Your task to perform on an android device: Add "logitech g903" to the cart on costco Image 0: 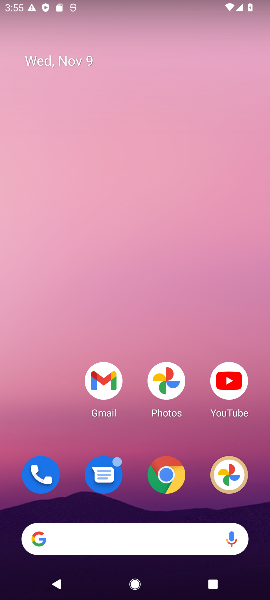
Step 0: drag from (159, 522) to (205, 97)
Your task to perform on an android device: Add "logitech g903" to the cart on costco Image 1: 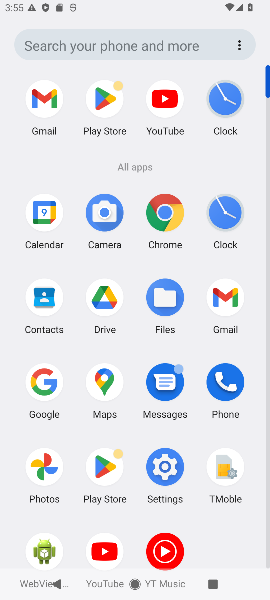
Step 1: click (171, 206)
Your task to perform on an android device: Add "logitech g903" to the cart on costco Image 2: 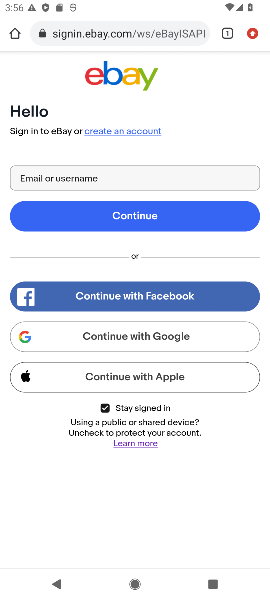
Step 2: click (99, 32)
Your task to perform on an android device: Add "logitech g903" to the cart on costco Image 3: 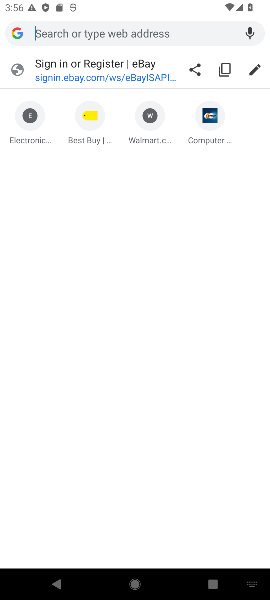
Step 3: type "costco"
Your task to perform on an android device: Add "logitech g903" to the cart on costco Image 4: 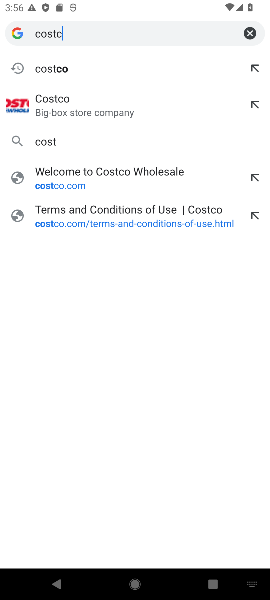
Step 4: press enter
Your task to perform on an android device: Add "logitech g903" to the cart on costco Image 5: 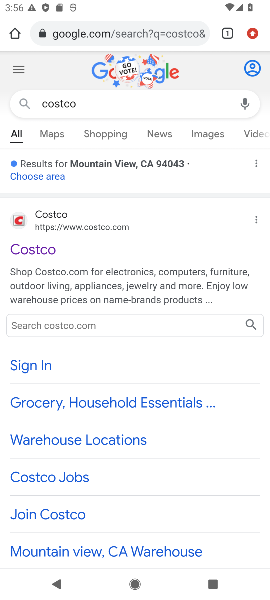
Step 5: click (32, 221)
Your task to perform on an android device: Add "logitech g903" to the cart on costco Image 6: 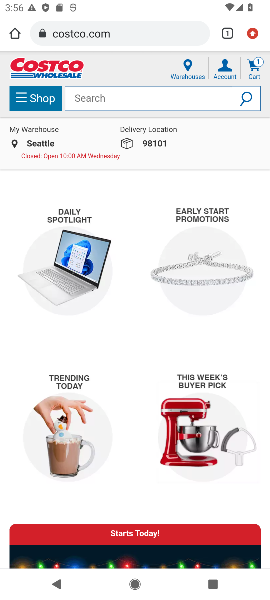
Step 6: click (110, 105)
Your task to perform on an android device: Add "logitech g903" to the cart on costco Image 7: 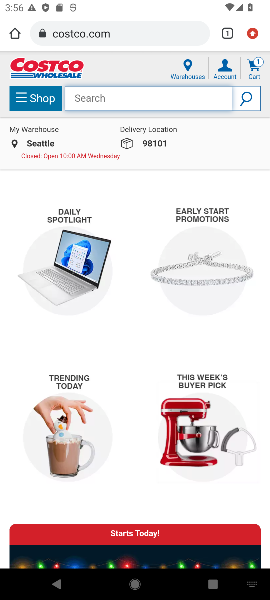
Step 7: click (97, 102)
Your task to perform on an android device: Add "logitech g903" to the cart on costco Image 8: 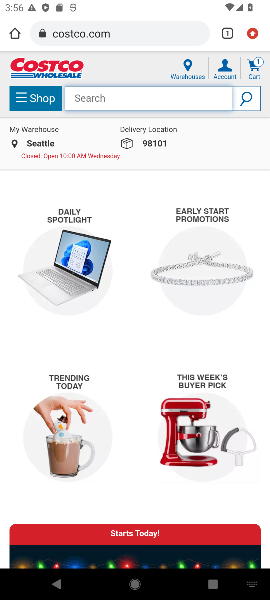
Step 8: click (116, 95)
Your task to perform on an android device: Add "logitech g903" to the cart on costco Image 9: 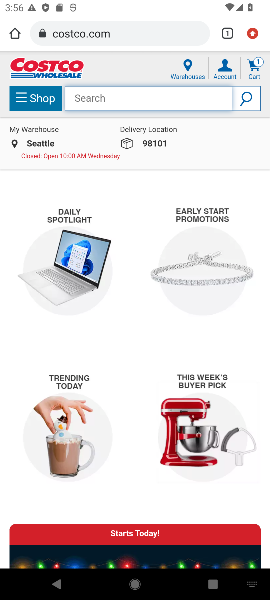
Step 9: click (104, 98)
Your task to perform on an android device: Add "logitech g903" to the cart on costco Image 10: 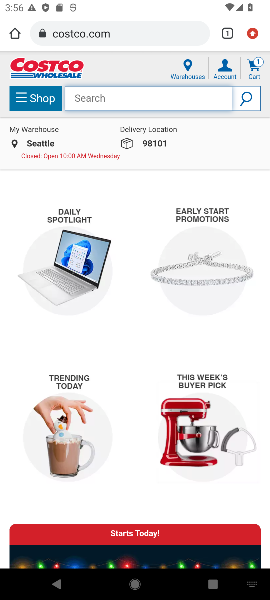
Step 10: click (137, 101)
Your task to perform on an android device: Add "logitech g903" to the cart on costco Image 11: 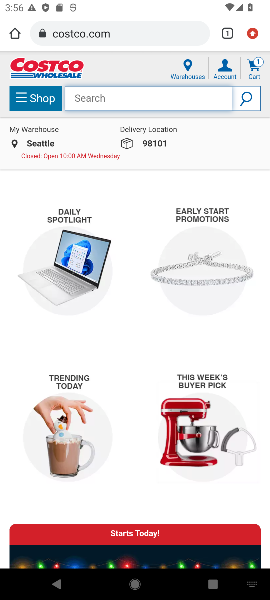
Step 11: click (92, 95)
Your task to perform on an android device: Add "logitech g903" to the cart on costco Image 12: 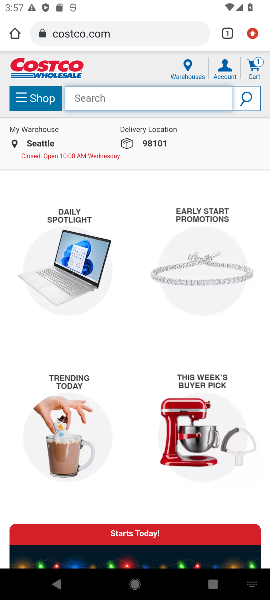
Step 12: click (169, 97)
Your task to perform on an android device: Add "logitech g903" to the cart on costco Image 13: 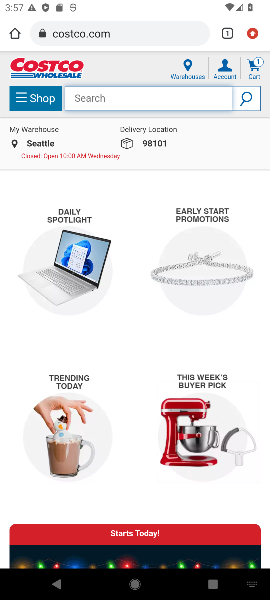
Step 13: click (82, 91)
Your task to perform on an android device: Add "logitech g903" to the cart on costco Image 14: 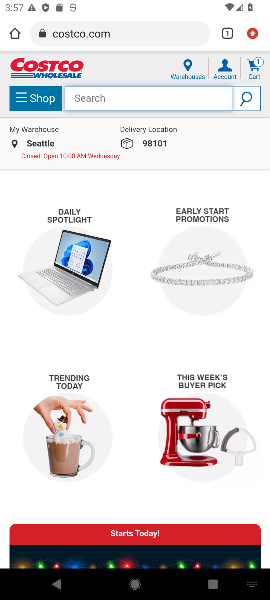
Step 14: click (81, 101)
Your task to perform on an android device: Add "logitech g903" to the cart on costco Image 15: 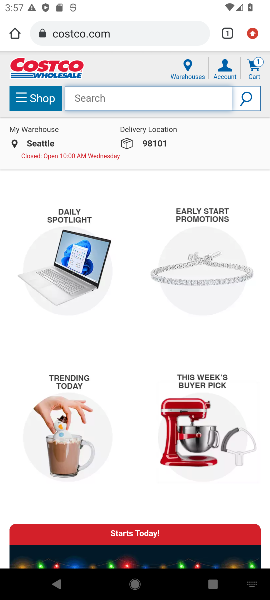
Step 15: click (81, 100)
Your task to perform on an android device: Add "logitech g903" to the cart on costco Image 16: 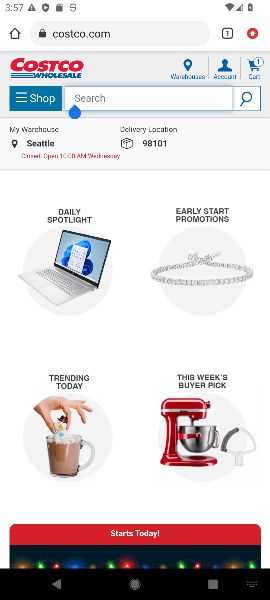
Step 16: click (82, 101)
Your task to perform on an android device: Add "logitech g903" to the cart on costco Image 17: 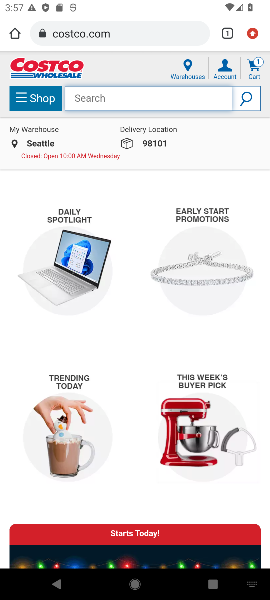
Step 17: click (82, 102)
Your task to perform on an android device: Add "logitech g903" to the cart on costco Image 18: 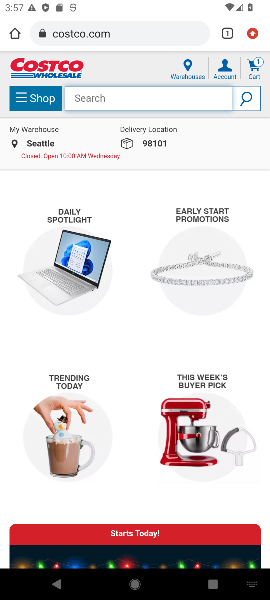
Step 18: type "logitech g903"
Your task to perform on an android device: Add "logitech g903" to the cart on costco Image 19: 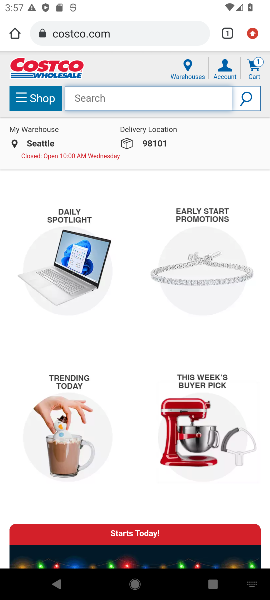
Step 19: press enter
Your task to perform on an android device: Add "logitech g903" to the cart on costco Image 20: 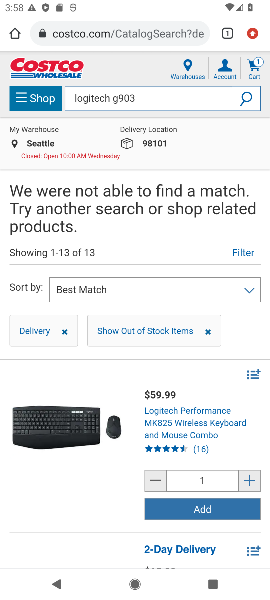
Step 20: click (222, 507)
Your task to perform on an android device: Add "logitech g903" to the cart on costco Image 21: 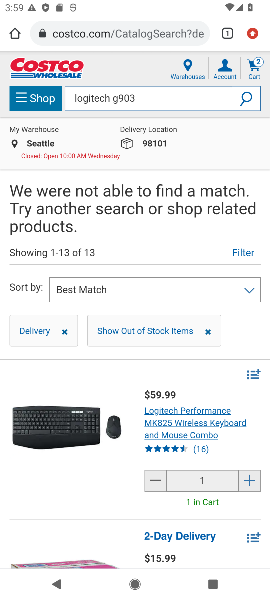
Step 21: task complete